Your task to perform on an android device: Go to wifi settings Image 0: 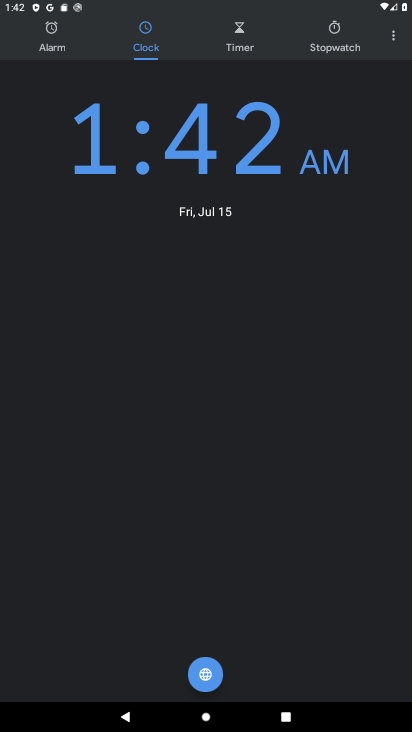
Step 0: press home button
Your task to perform on an android device: Go to wifi settings Image 1: 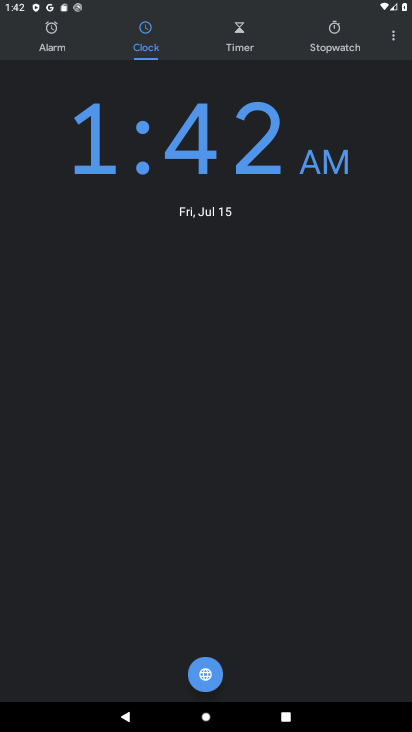
Step 1: press home button
Your task to perform on an android device: Go to wifi settings Image 2: 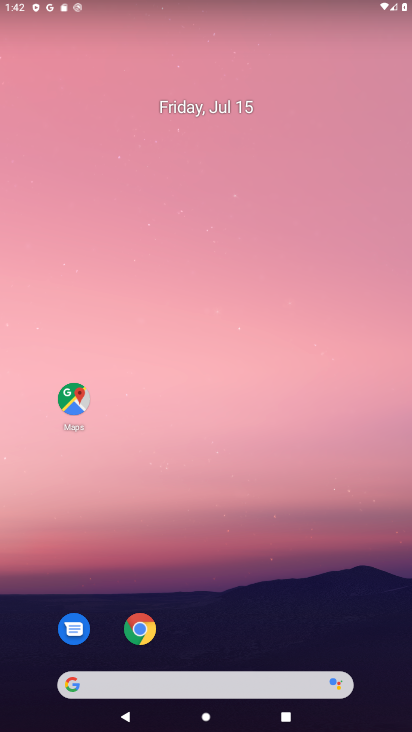
Step 2: drag from (239, 391) to (264, 56)
Your task to perform on an android device: Go to wifi settings Image 3: 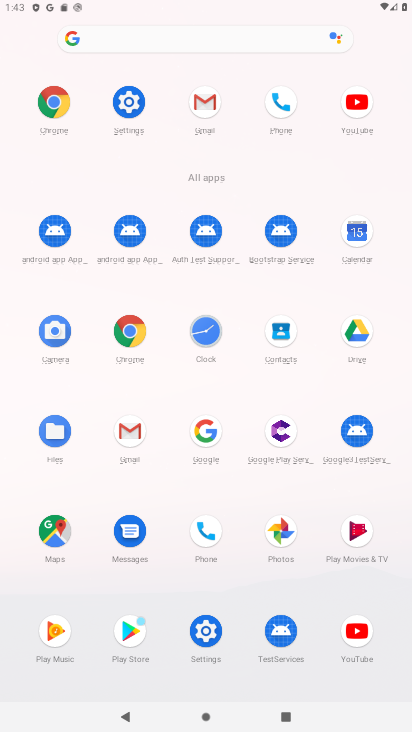
Step 3: click (124, 95)
Your task to perform on an android device: Go to wifi settings Image 4: 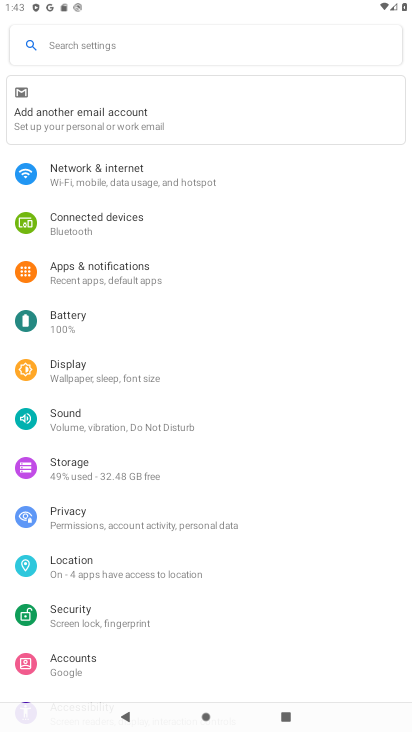
Step 4: click (106, 178)
Your task to perform on an android device: Go to wifi settings Image 5: 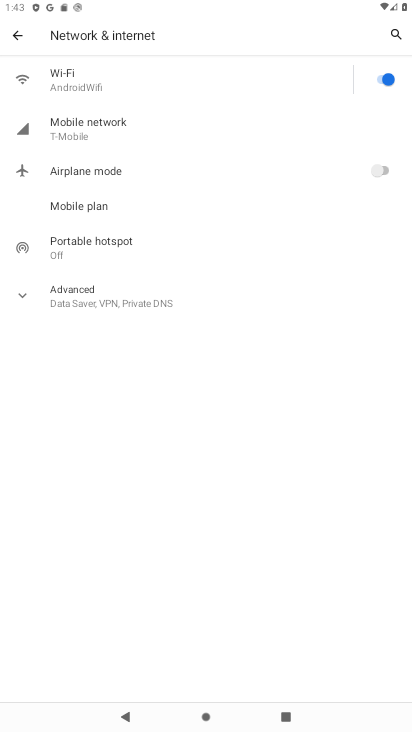
Step 5: task complete